Your task to perform on an android device: When is my next appointment? Image 0: 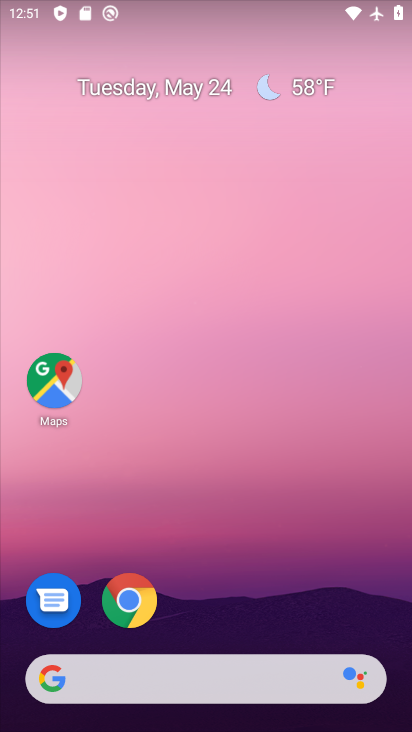
Step 0: drag from (283, 540) to (179, 82)
Your task to perform on an android device: When is my next appointment? Image 1: 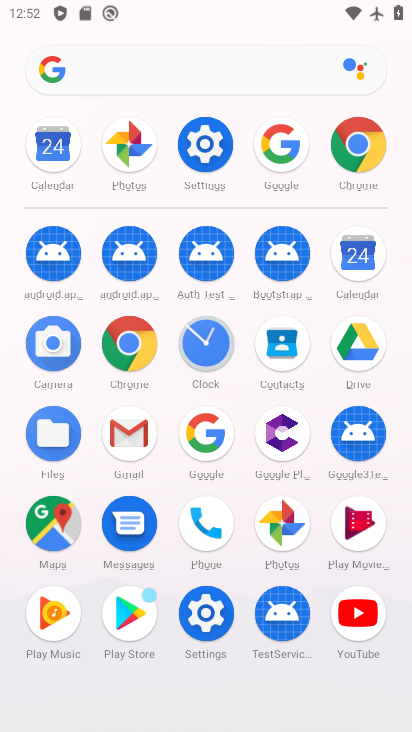
Step 1: click (344, 263)
Your task to perform on an android device: When is my next appointment? Image 2: 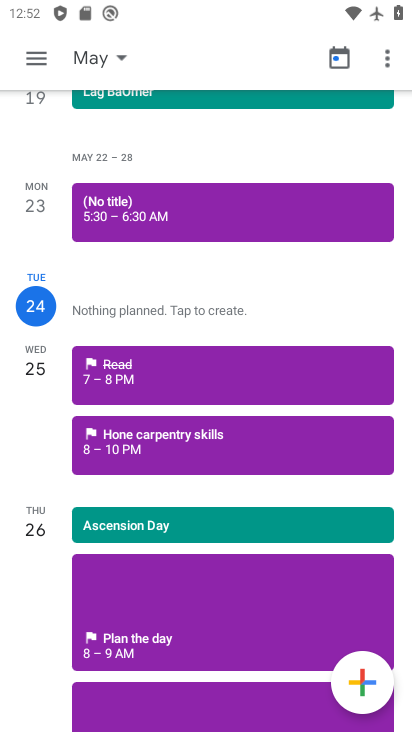
Step 2: task complete